Your task to perform on an android device: Go to display settings Image 0: 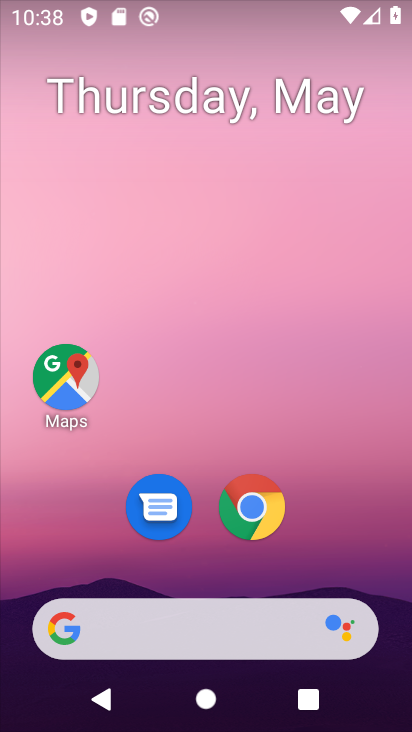
Step 0: drag from (254, 628) to (291, 193)
Your task to perform on an android device: Go to display settings Image 1: 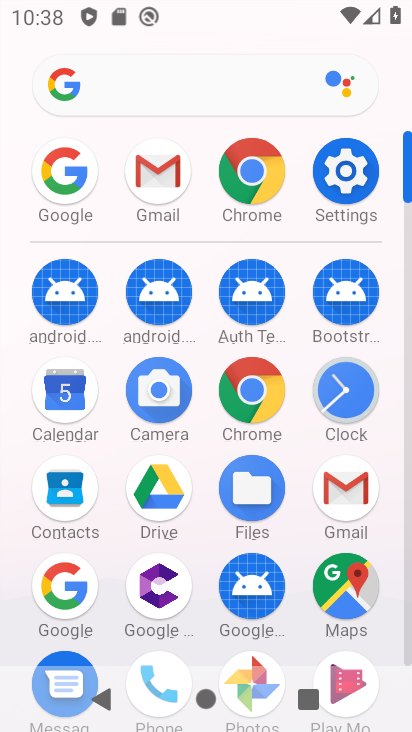
Step 1: click (367, 192)
Your task to perform on an android device: Go to display settings Image 2: 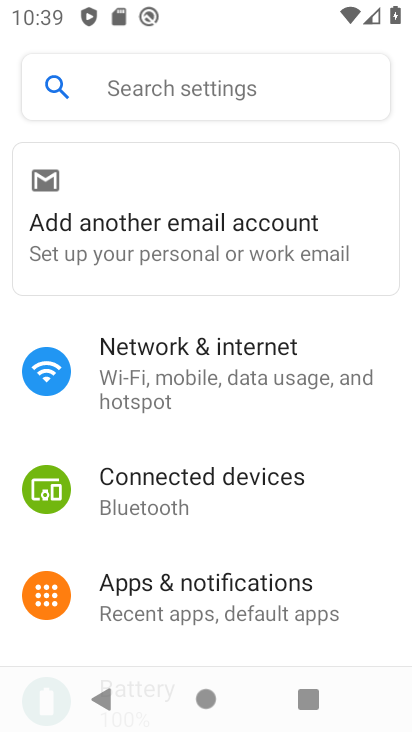
Step 2: drag from (169, 514) to (195, 83)
Your task to perform on an android device: Go to display settings Image 3: 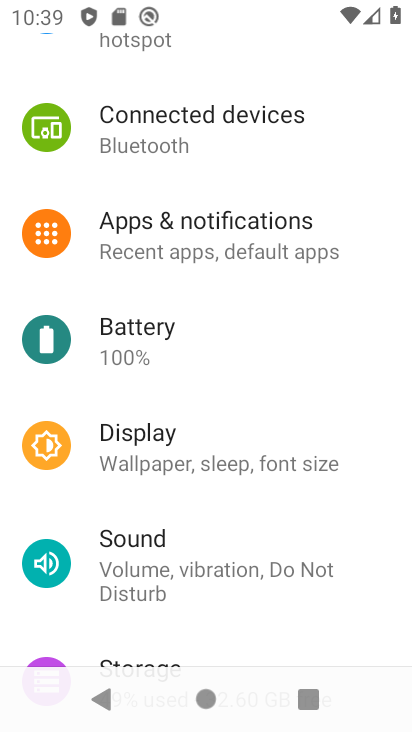
Step 3: click (186, 463)
Your task to perform on an android device: Go to display settings Image 4: 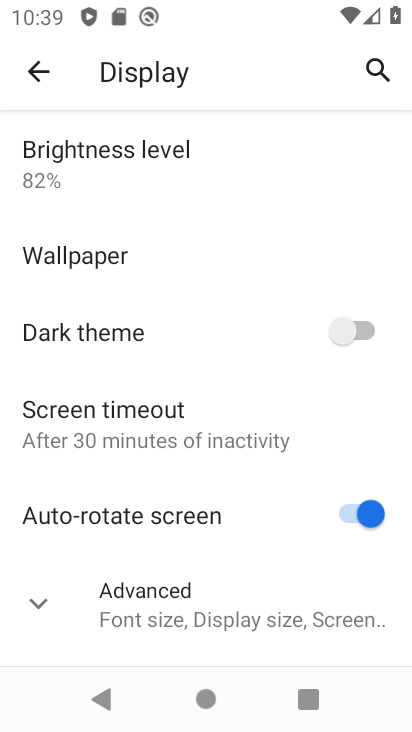
Step 4: click (180, 588)
Your task to perform on an android device: Go to display settings Image 5: 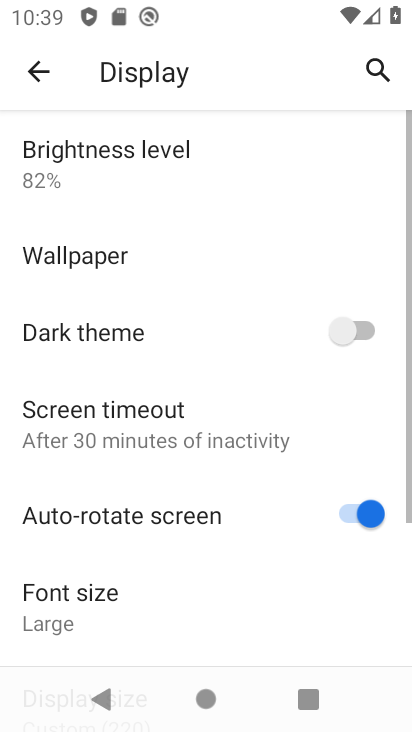
Step 5: task complete